Your task to perform on an android device: Open eBay Image 0: 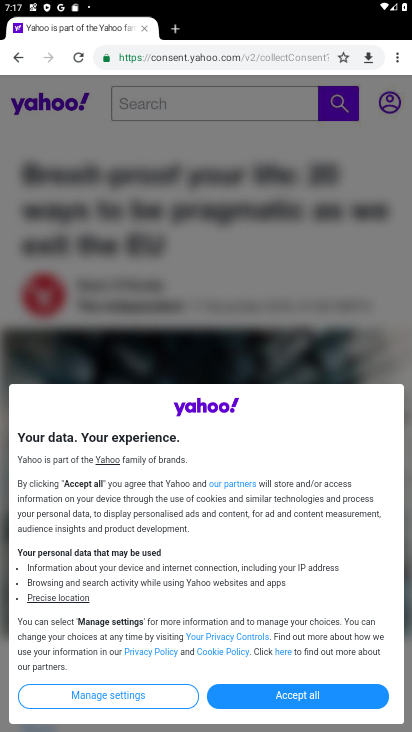
Step 0: click (240, 57)
Your task to perform on an android device: Open eBay Image 1: 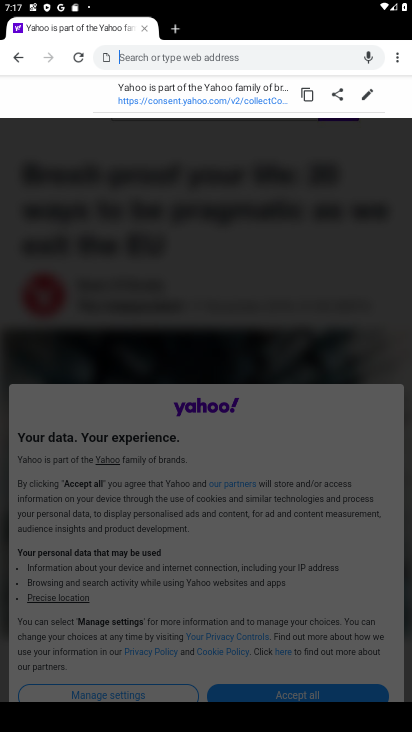
Step 1: type "eBay"
Your task to perform on an android device: Open eBay Image 2: 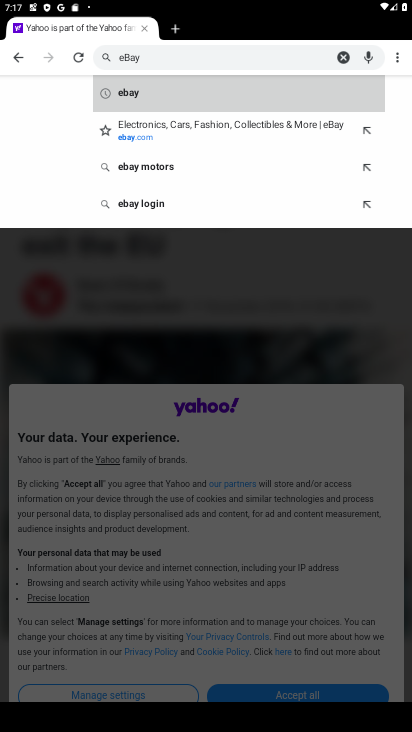
Step 2: click (159, 133)
Your task to perform on an android device: Open eBay Image 3: 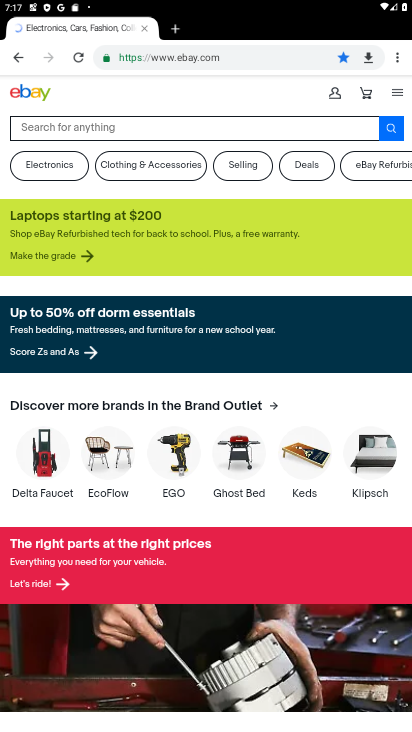
Step 3: task complete